Your task to perform on an android device: Open the Play Movies app and select the watchlist tab. Image 0: 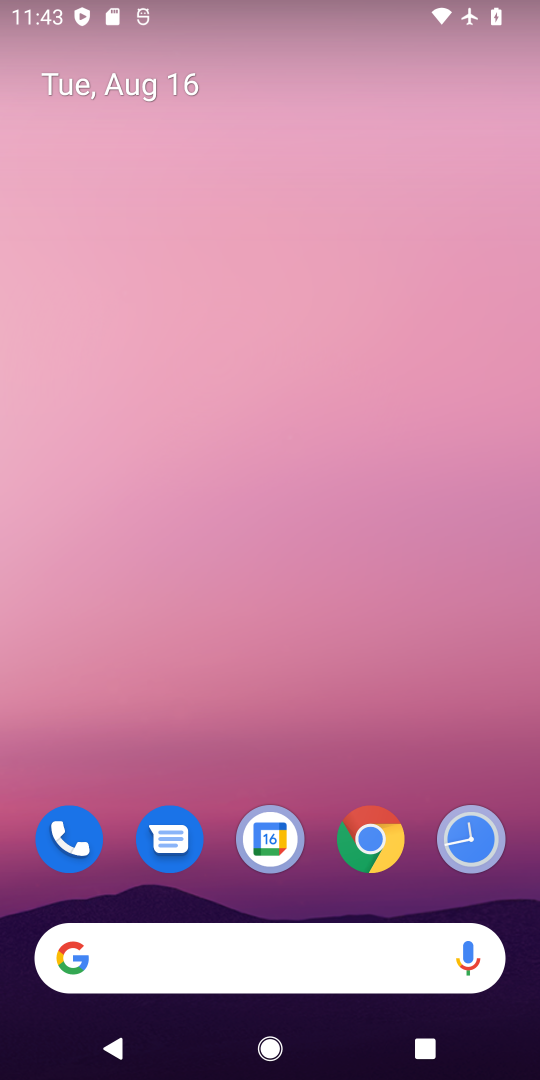
Step 0: drag from (210, 655) to (218, 1)
Your task to perform on an android device: Open the Play Movies app and select the watchlist tab. Image 1: 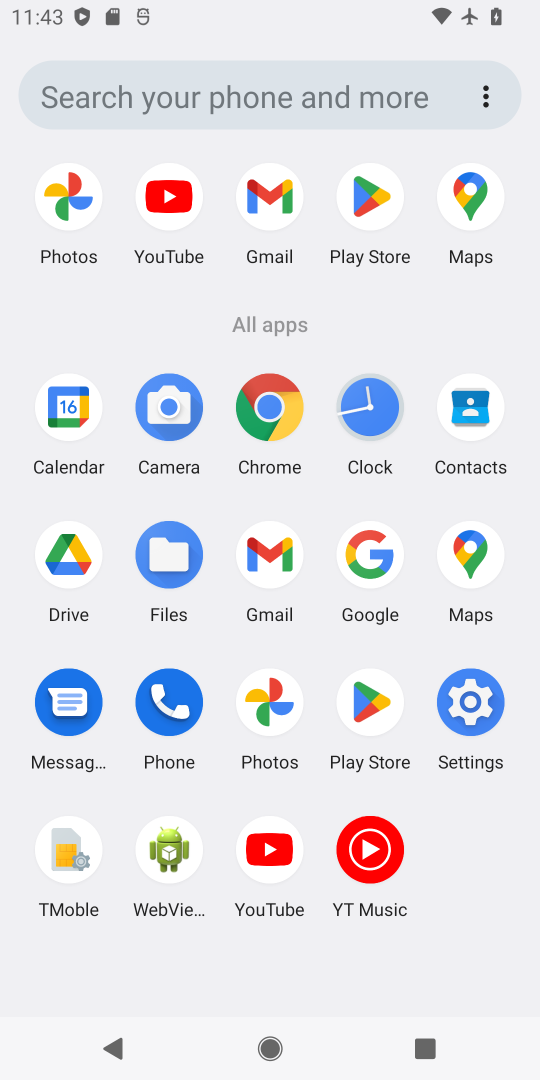
Step 1: task complete